Your task to perform on an android device: allow notifications from all sites in the chrome app Image 0: 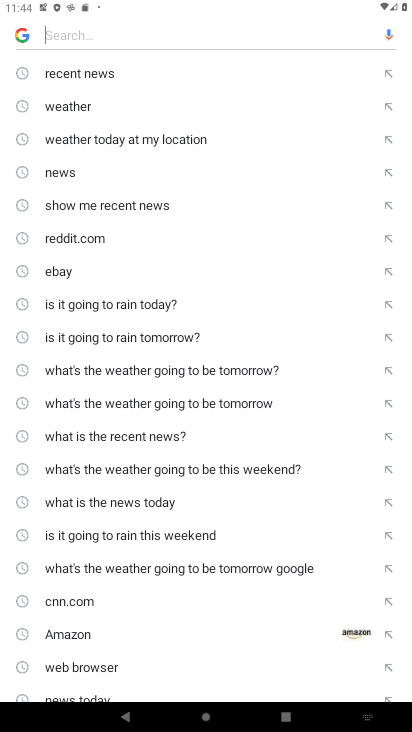
Step 0: task complete